Your task to perform on an android device: change the upload size in google photos Image 0: 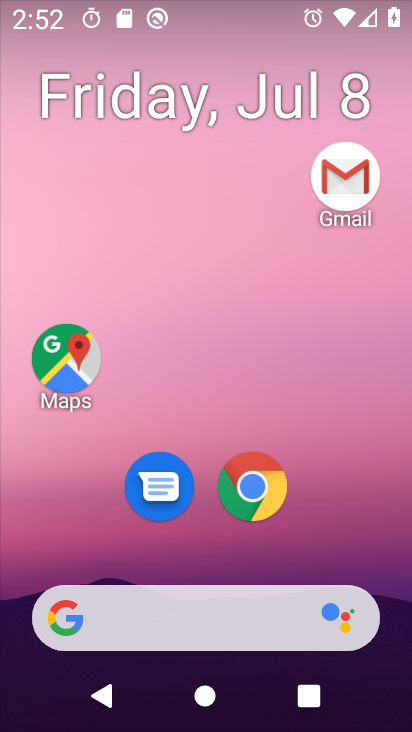
Step 0: drag from (376, 528) to (398, 114)
Your task to perform on an android device: change the upload size in google photos Image 1: 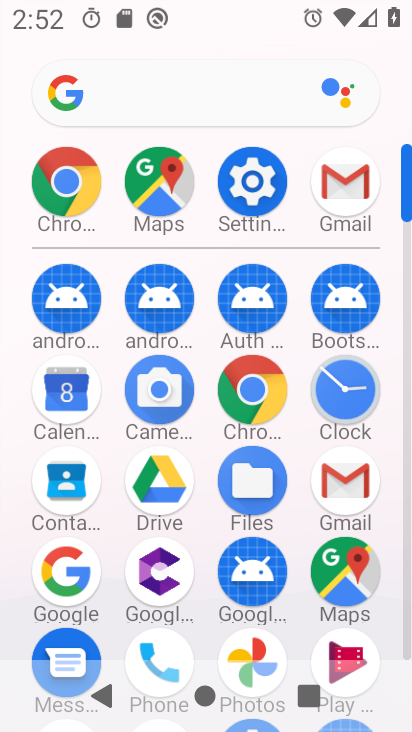
Step 1: drag from (395, 536) to (380, 322)
Your task to perform on an android device: change the upload size in google photos Image 2: 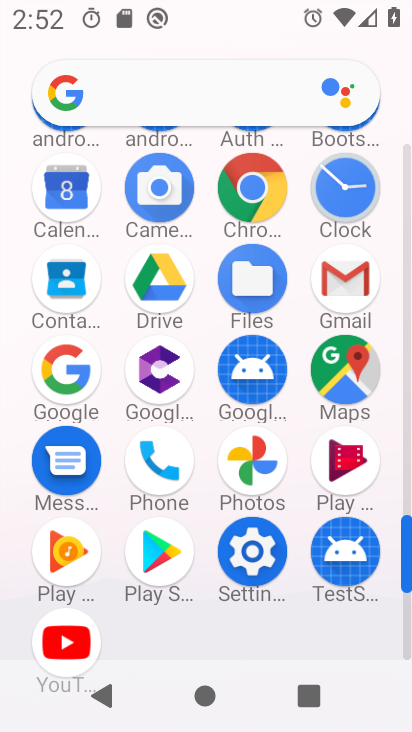
Step 2: click (257, 457)
Your task to perform on an android device: change the upload size in google photos Image 3: 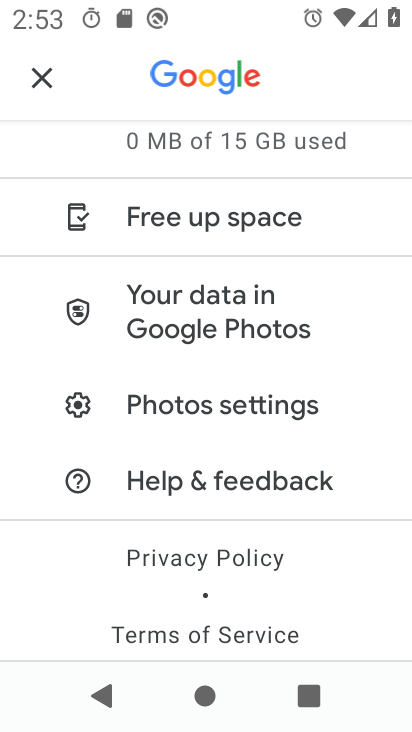
Step 3: click (308, 406)
Your task to perform on an android device: change the upload size in google photos Image 4: 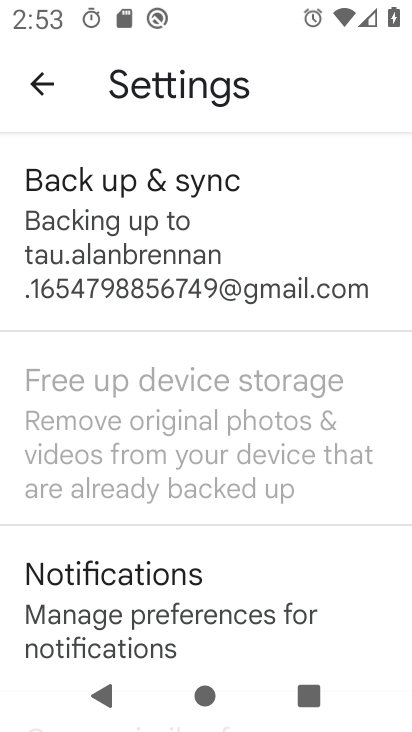
Step 4: click (242, 277)
Your task to perform on an android device: change the upload size in google photos Image 5: 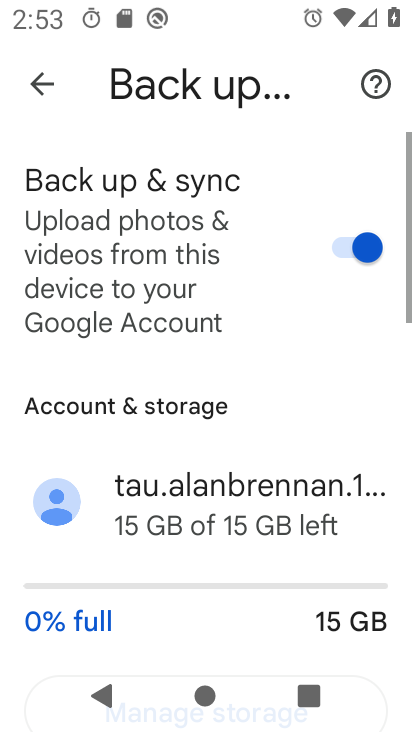
Step 5: drag from (285, 549) to (286, 355)
Your task to perform on an android device: change the upload size in google photos Image 6: 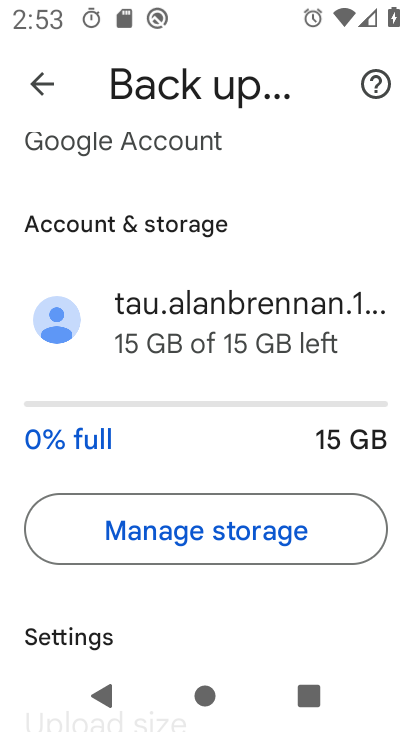
Step 6: drag from (284, 588) to (258, 391)
Your task to perform on an android device: change the upload size in google photos Image 7: 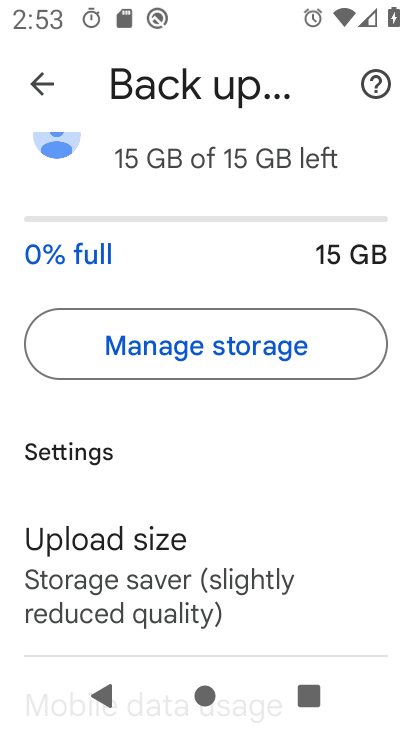
Step 7: drag from (293, 520) to (290, 375)
Your task to perform on an android device: change the upload size in google photos Image 8: 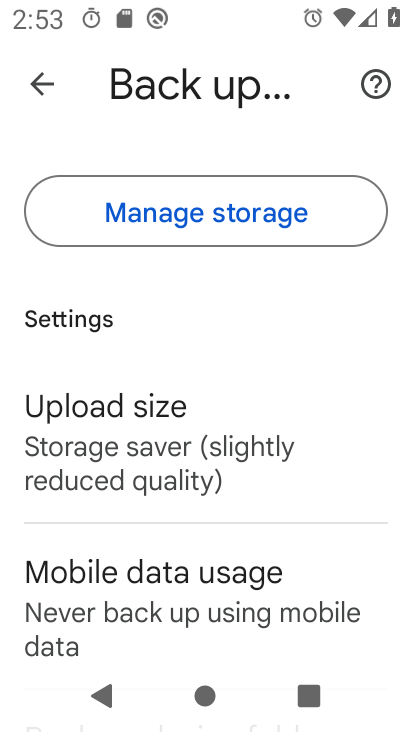
Step 8: drag from (315, 502) to (311, 370)
Your task to perform on an android device: change the upload size in google photos Image 9: 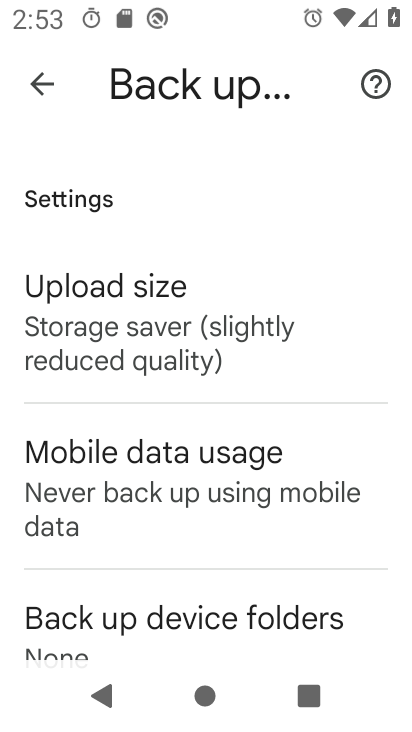
Step 9: click (194, 333)
Your task to perform on an android device: change the upload size in google photos Image 10: 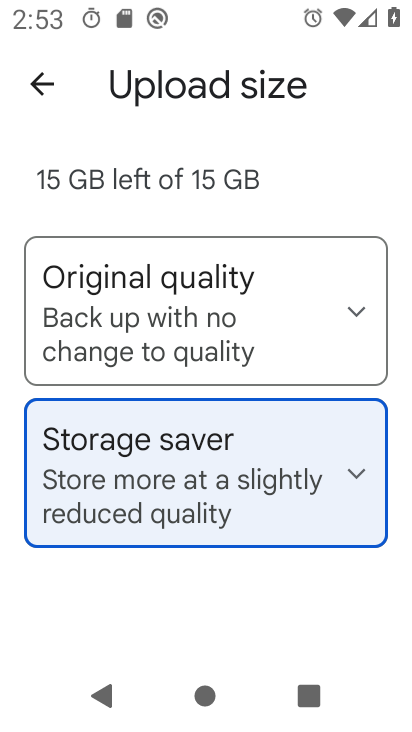
Step 10: click (196, 312)
Your task to perform on an android device: change the upload size in google photos Image 11: 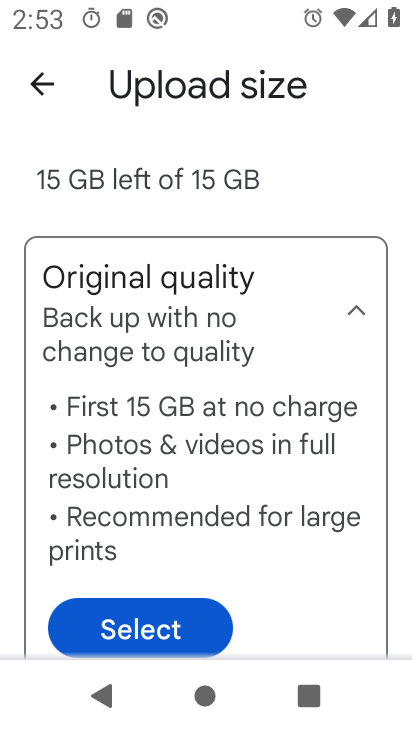
Step 11: click (162, 618)
Your task to perform on an android device: change the upload size in google photos Image 12: 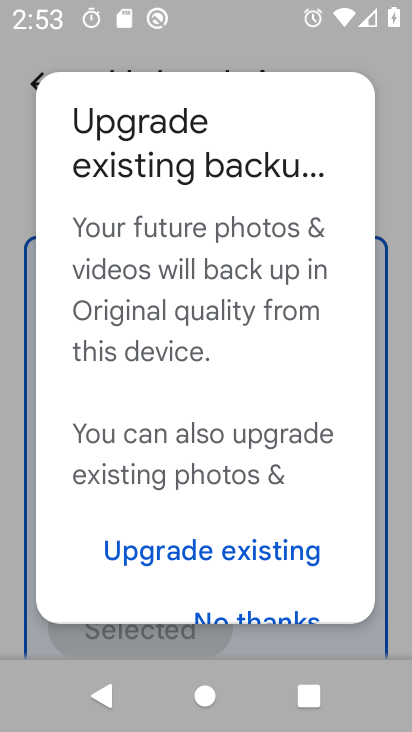
Step 12: drag from (264, 492) to (273, 255)
Your task to perform on an android device: change the upload size in google photos Image 13: 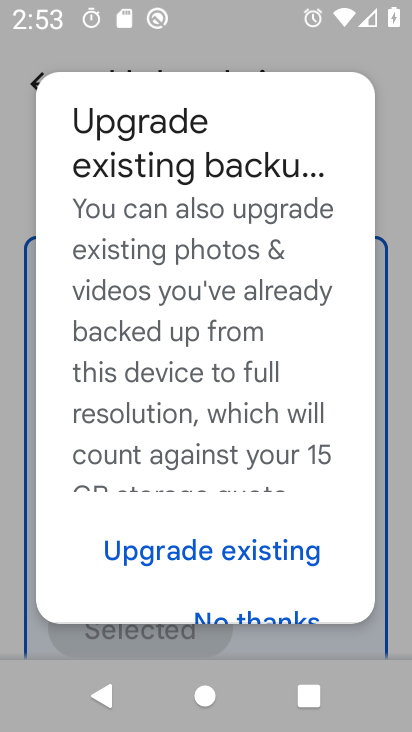
Step 13: click (275, 558)
Your task to perform on an android device: change the upload size in google photos Image 14: 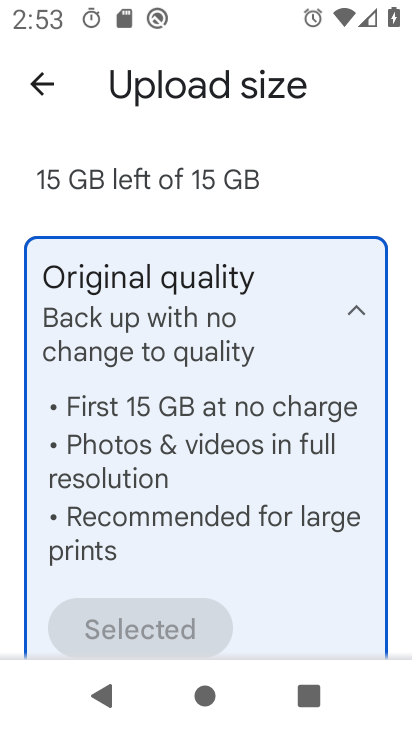
Step 14: task complete